Your task to perform on an android device: Open Google Image 0: 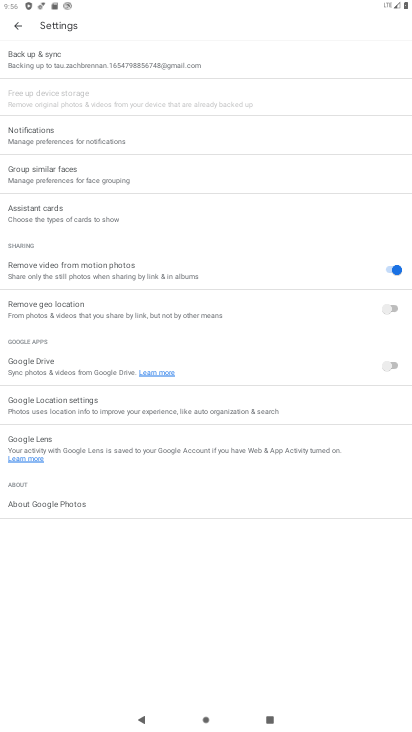
Step 0: press home button
Your task to perform on an android device: Open Google Image 1: 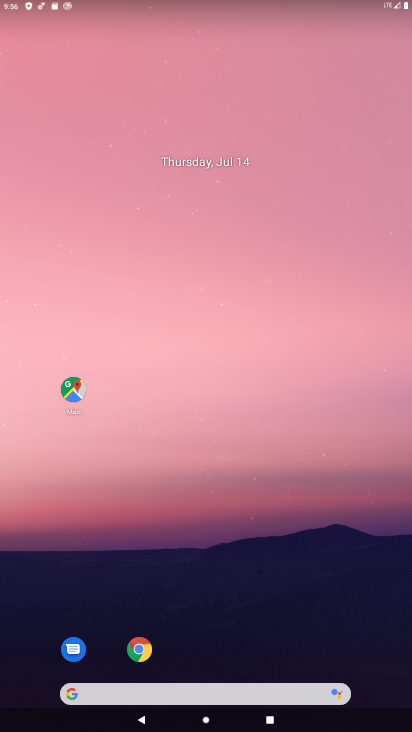
Step 1: drag from (192, 647) to (162, 239)
Your task to perform on an android device: Open Google Image 2: 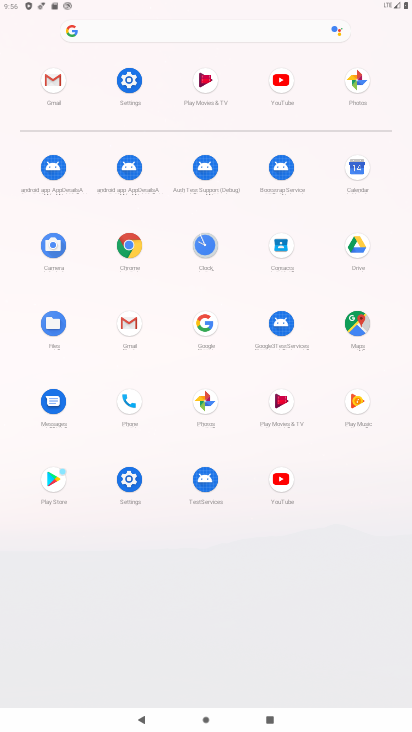
Step 2: click (198, 352)
Your task to perform on an android device: Open Google Image 3: 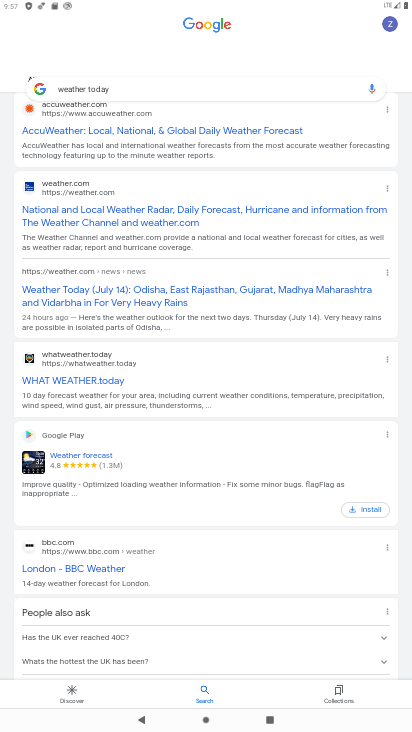
Step 3: task complete